Your task to perform on an android device: Open sound settings Image 0: 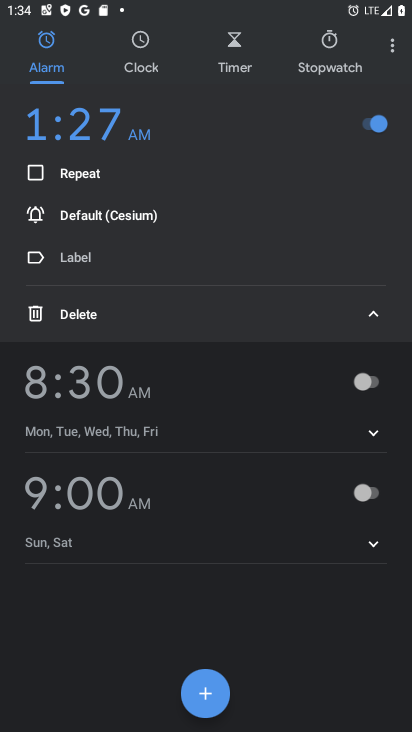
Step 0: press home button
Your task to perform on an android device: Open sound settings Image 1: 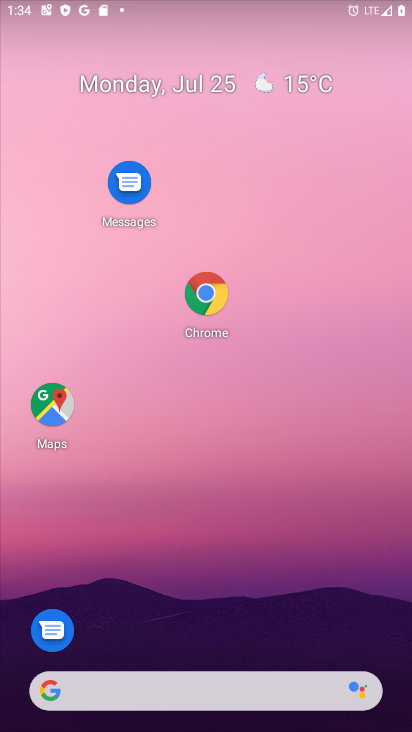
Step 1: drag from (305, 637) to (278, 520)
Your task to perform on an android device: Open sound settings Image 2: 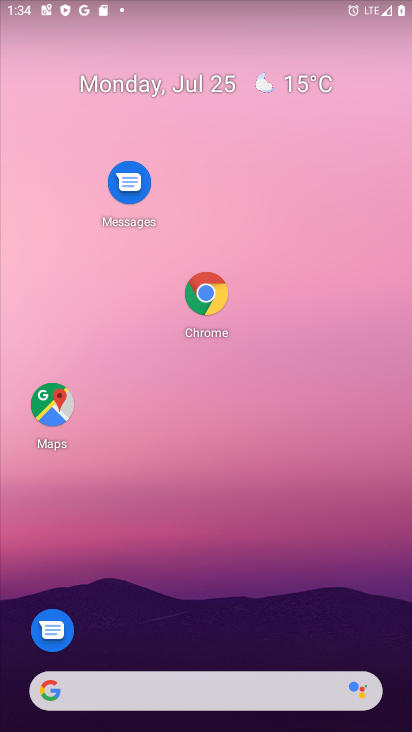
Step 2: drag from (338, 679) to (301, 0)
Your task to perform on an android device: Open sound settings Image 3: 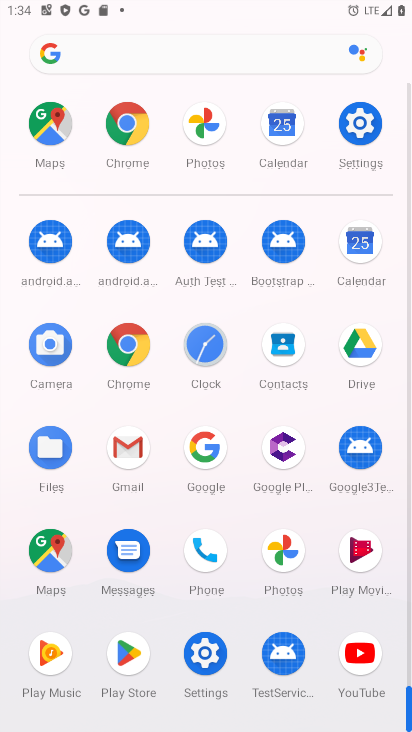
Step 3: click (342, 129)
Your task to perform on an android device: Open sound settings Image 4: 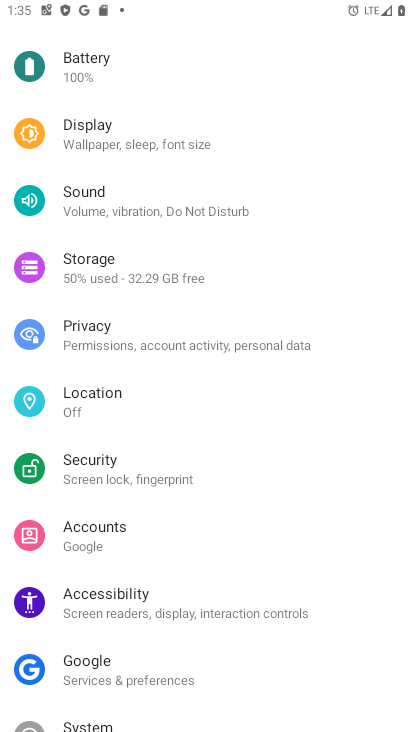
Step 4: click (50, 207)
Your task to perform on an android device: Open sound settings Image 5: 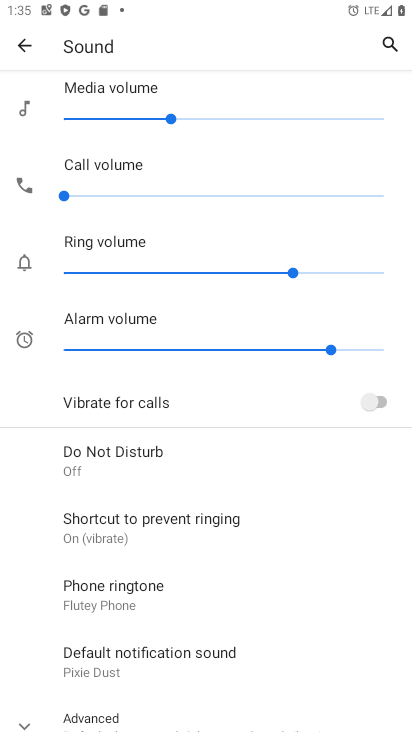
Step 5: task complete